Your task to perform on an android device: toggle airplane mode Image 0: 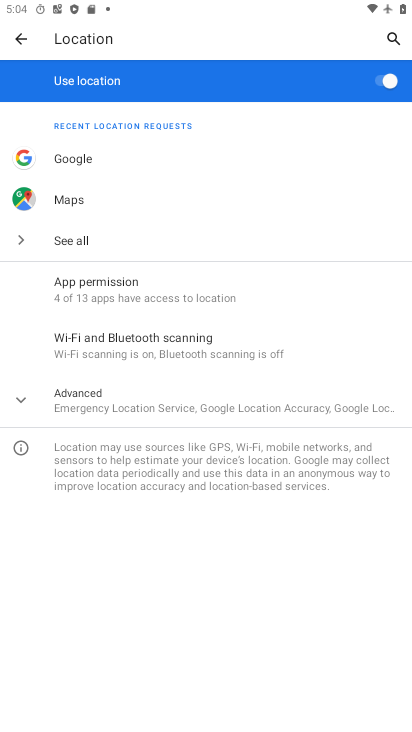
Step 0: drag from (326, 20) to (348, 450)
Your task to perform on an android device: toggle airplane mode Image 1: 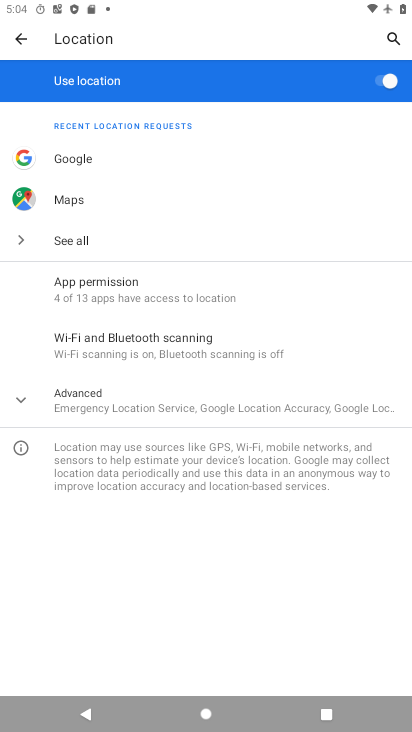
Step 1: drag from (271, 7) to (278, 456)
Your task to perform on an android device: toggle airplane mode Image 2: 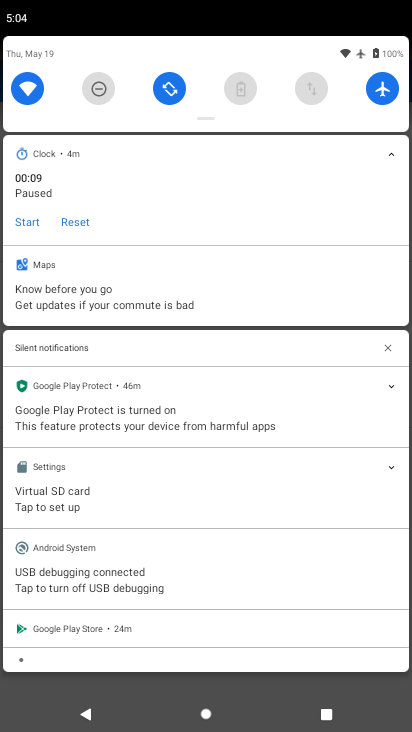
Step 2: click (377, 86)
Your task to perform on an android device: toggle airplane mode Image 3: 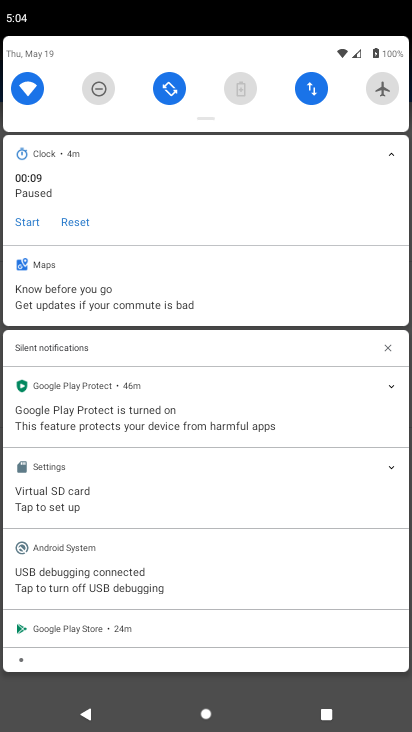
Step 3: task complete